Your task to perform on an android device: toggle improve location accuracy Image 0: 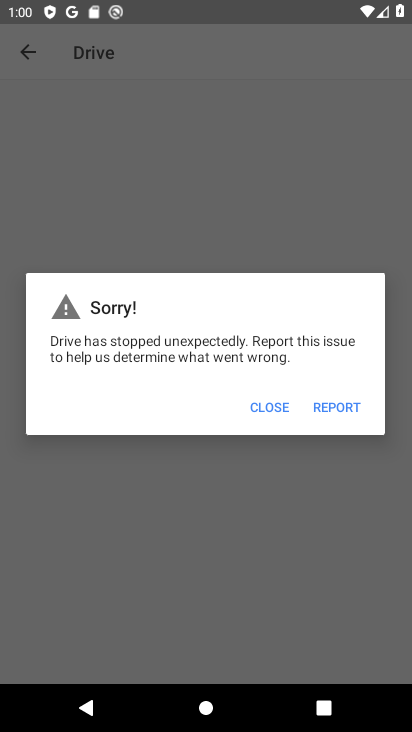
Step 0: press home button
Your task to perform on an android device: toggle improve location accuracy Image 1: 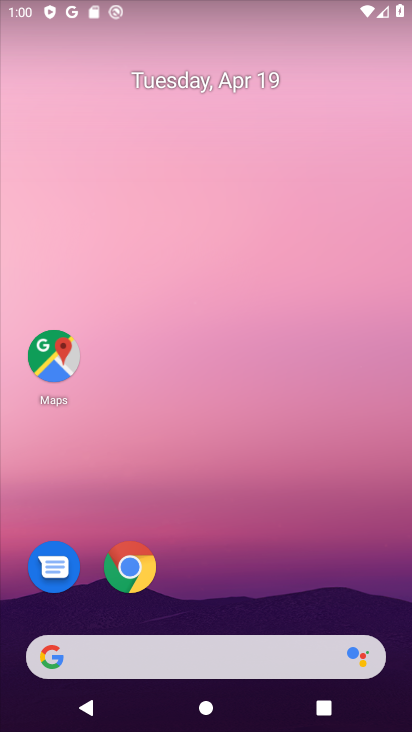
Step 1: drag from (281, 564) to (248, 131)
Your task to perform on an android device: toggle improve location accuracy Image 2: 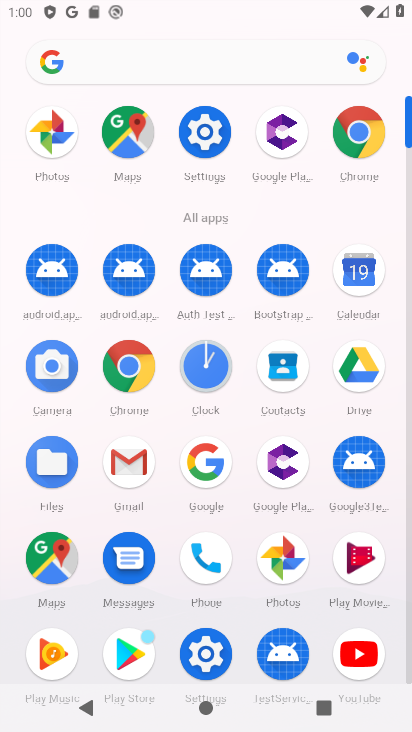
Step 2: click (205, 652)
Your task to perform on an android device: toggle improve location accuracy Image 3: 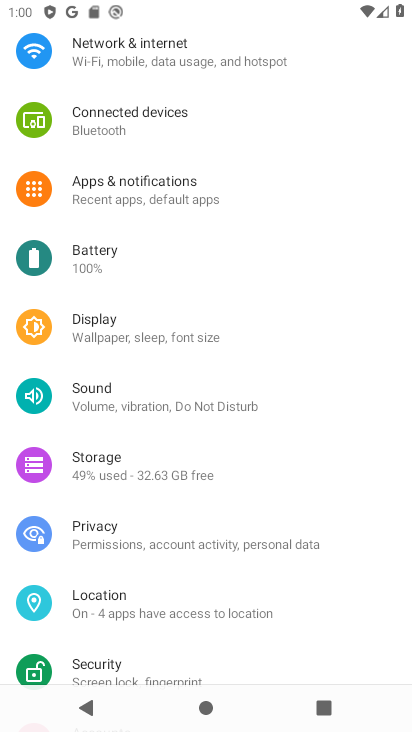
Step 3: click (228, 606)
Your task to perform on an android device: toggle improve location accuracy Image 4: 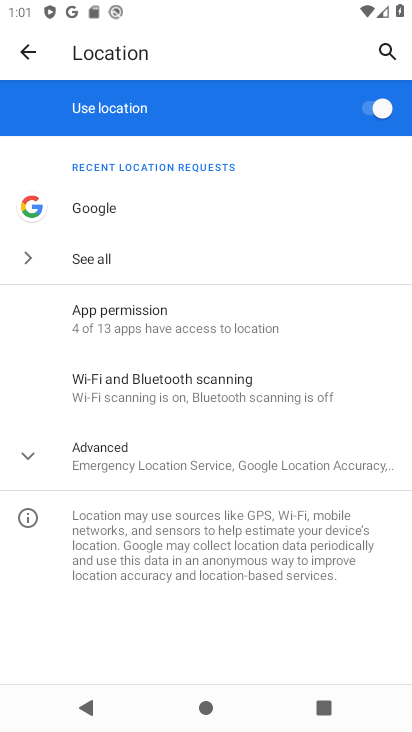
Step 4: click (108, 459)
Your task to perform on an android device: toggle improve location accuracy Image 5: 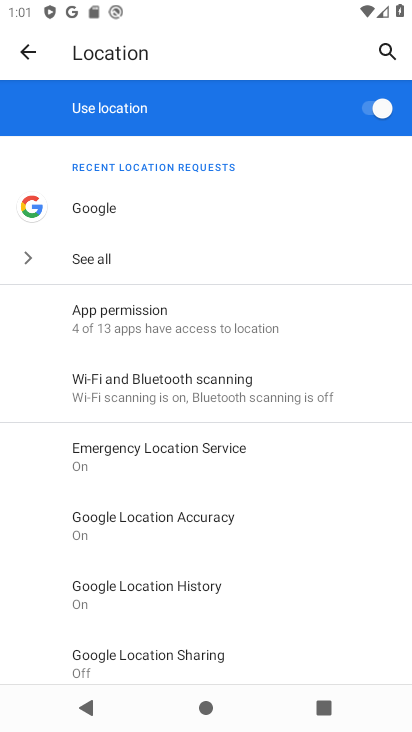
Step 5: drag from (315, 595) to (328, 307)
Your task to perform on an android device: toggle improve location accuracy Image 6: 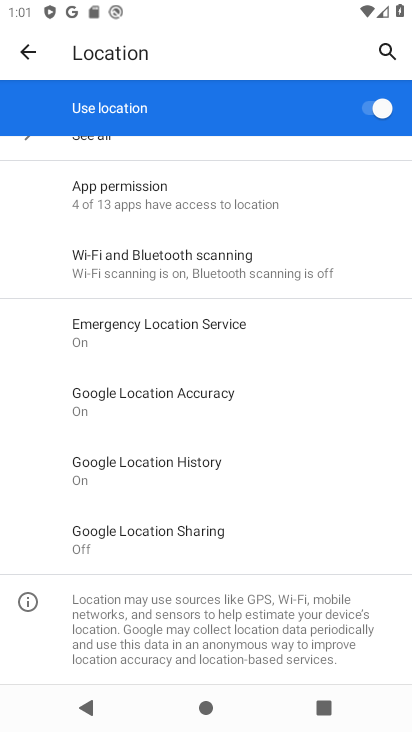
Step 6: click (189, 406)
Your task to perform on an android device: toggle improve location accuracy Image 7: 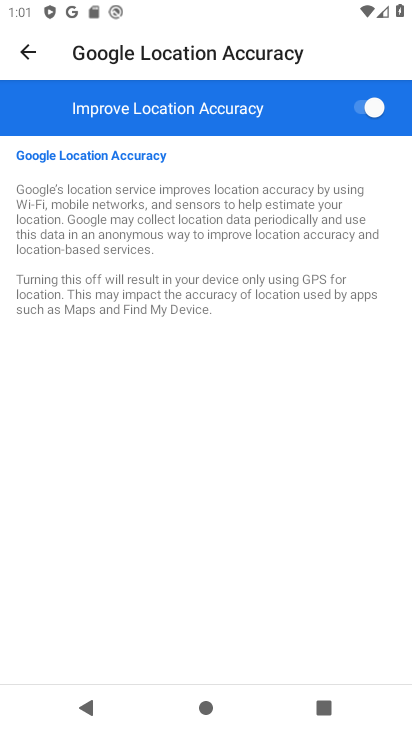
Step 7: click (351, 102)
Your task to perform on an android device: toggle improve location accuracy Image 8: 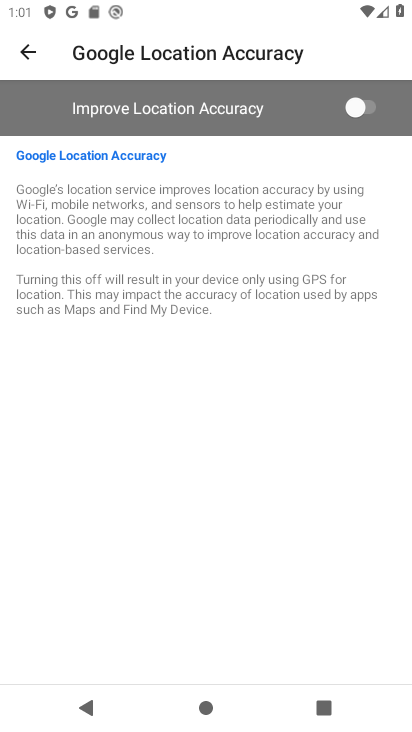
Step 8: task complete